Your task to perform on an android device: turn on translation in the chrome app Image 0: 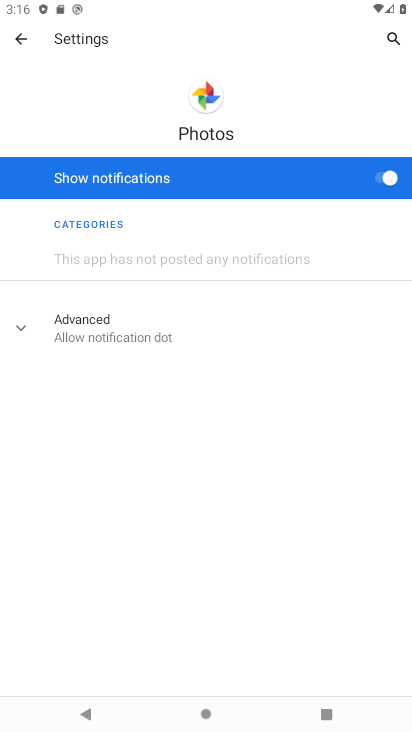
Step 0: press home button
Your task to perform on an android device: turn on translation in the chrome app Image 1: 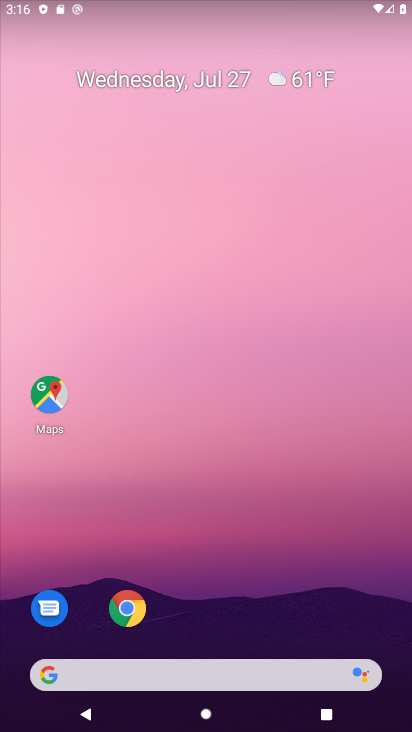
Step 1: click (126, 613)
Your task to perform on an android device: turn on translation in the chrome app Image 2: 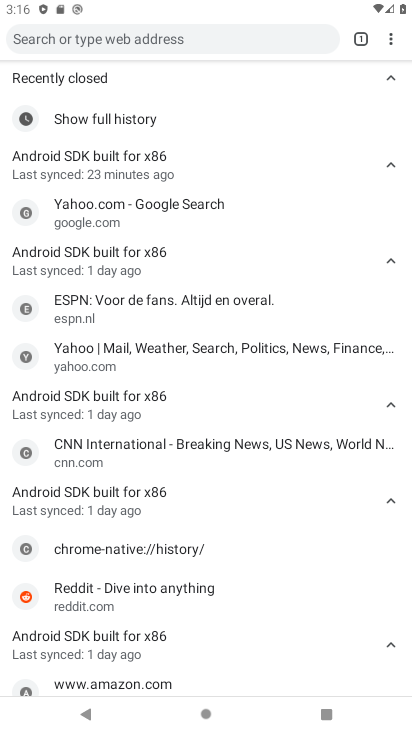
Step 2: click (391, 43)
Your task to perform on an android device: turn on translation in the chrome app Image 3: 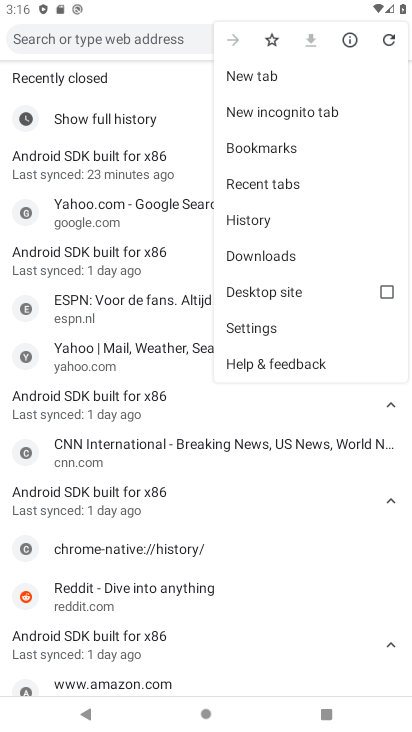
Step 3: click (254, 325)
Your task to perform on an android device: turn on translation in the chrome app Image 4: 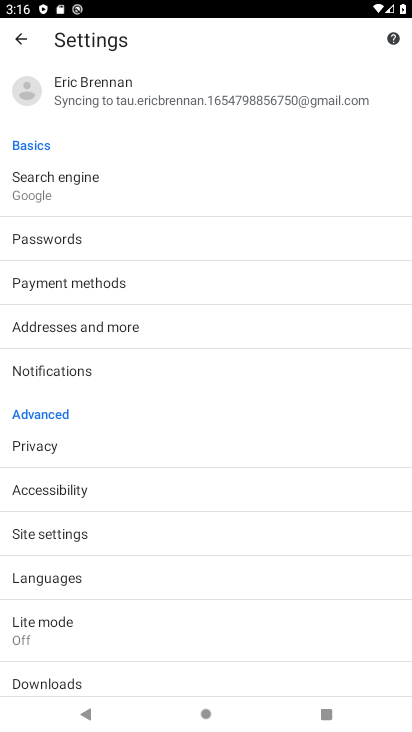
Step 4: click (36, 569)
Your task to perform on an android device: turn on translation in the chrome app Image 5: 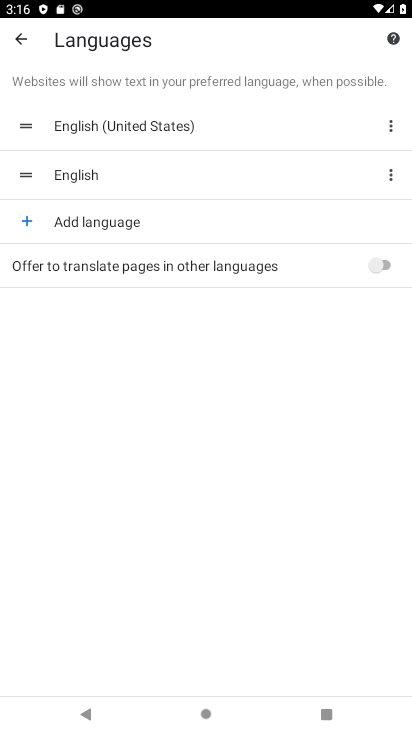
Step 5: click (386, 262)
Your task to perform on an android device: turn on translation in the chrome app Image 6: 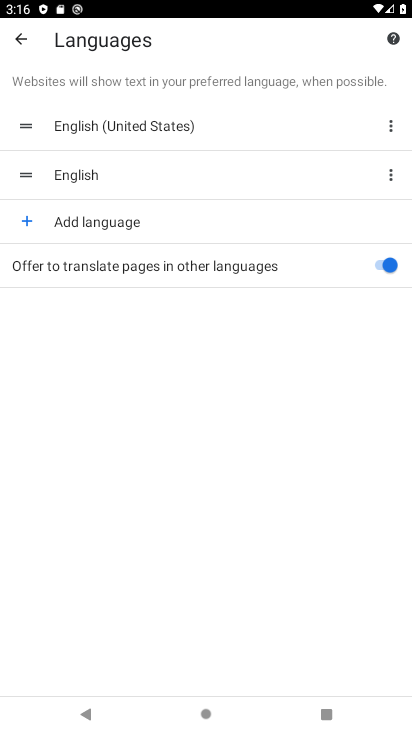
Step 6: task complete